Your task to perform on an android device: open wifi settings Image 0: 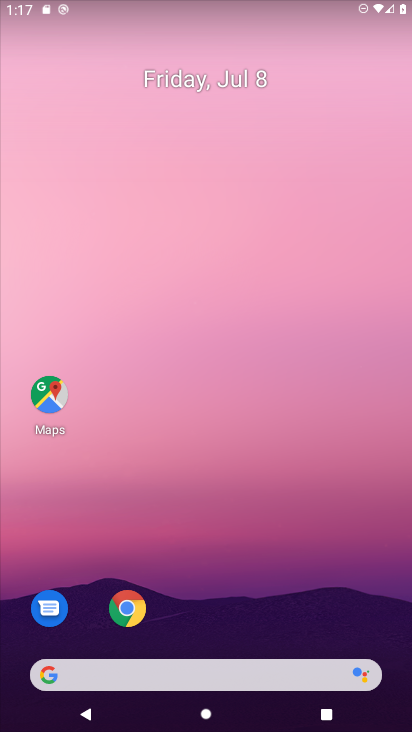
Step 0: drag from (344, 613) to (197, 23)
Your task to perform on an android device: open wifi settings Image 1: 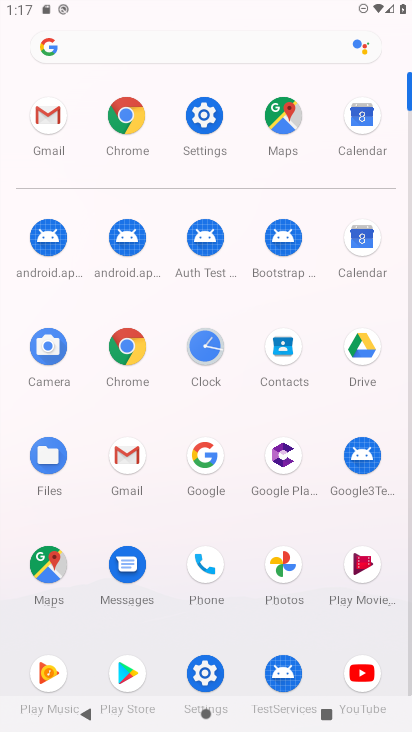
Step 1: click (213, 109)
Your task to perform on an android device: open wifi settings Image 2: 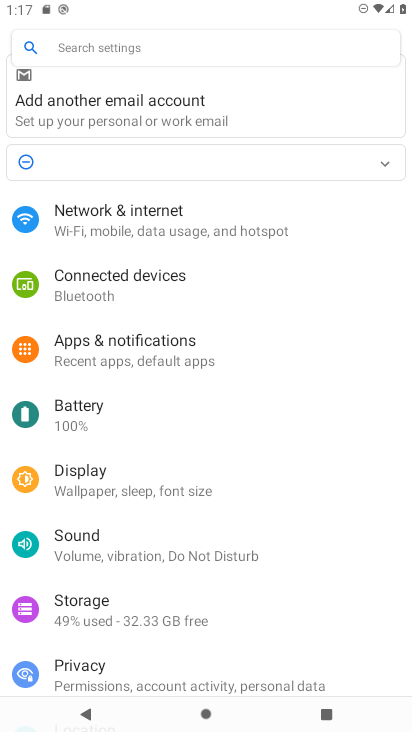
Step 2: click (190, 208)
Your task to perform on an android device: open wifi settings Image 3: 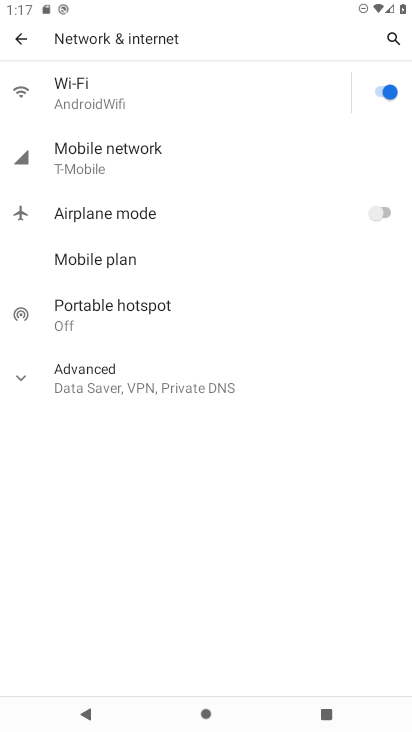
Step 3: click (152, 105)
Your task to perform on an android device: open wifi settings Image 4: 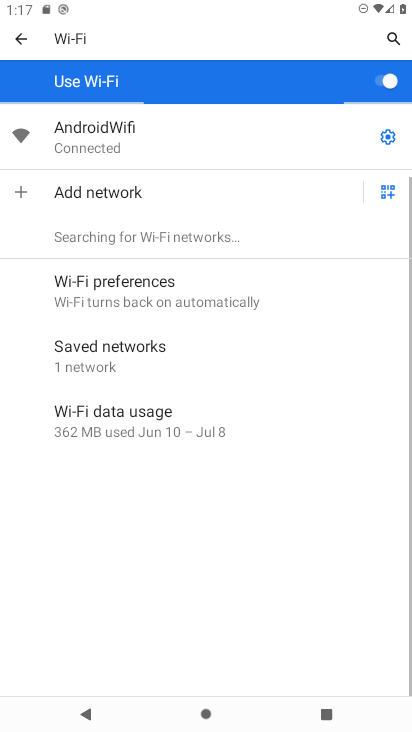
Step 4: task complete